Your task to perform on an android device: search for outdoor chairs on article.com Image 0: 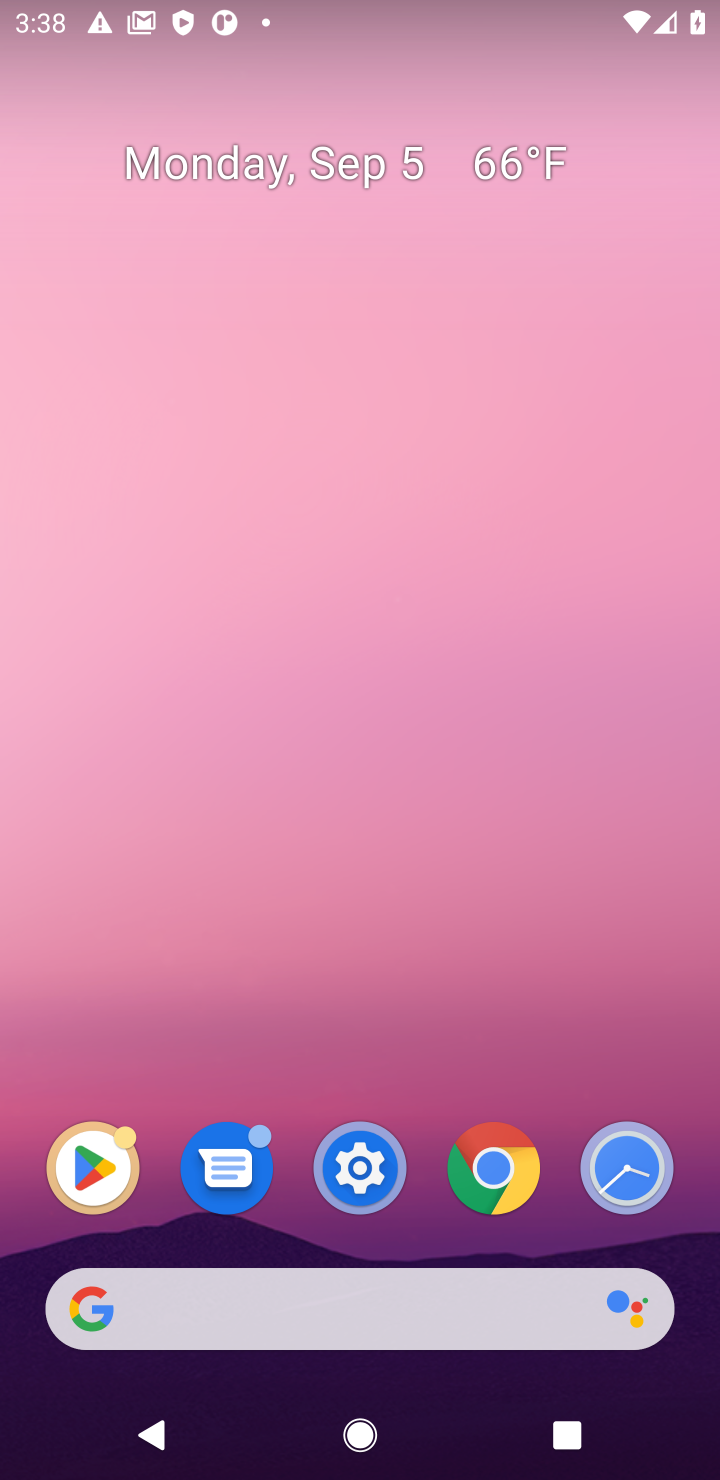
Step 0: click (309, 1288)
Your task to perform on an android device: search for outdoor chairs on article.com Image 1: 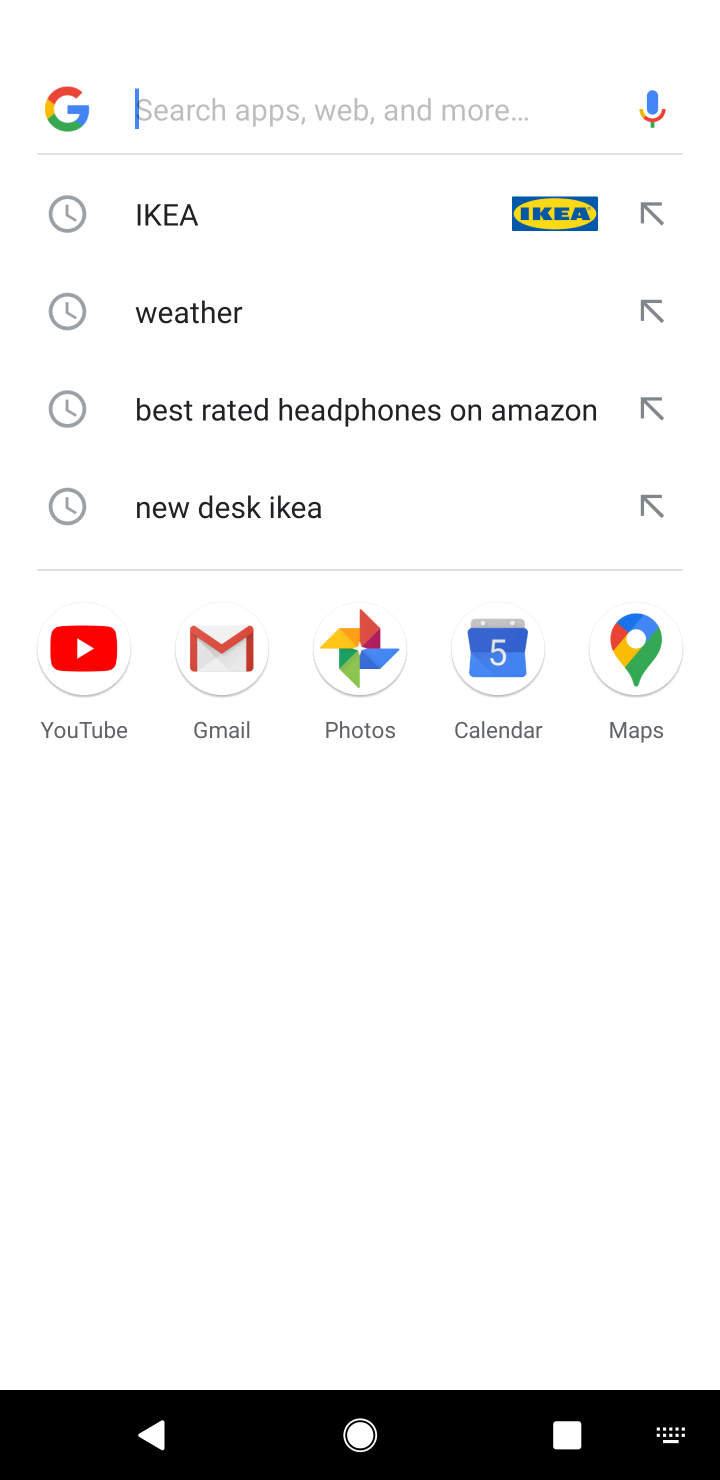
Step 1: type "article.com"
Your task to perform on an android device: search for outdoor chairs on article.com Image 2: 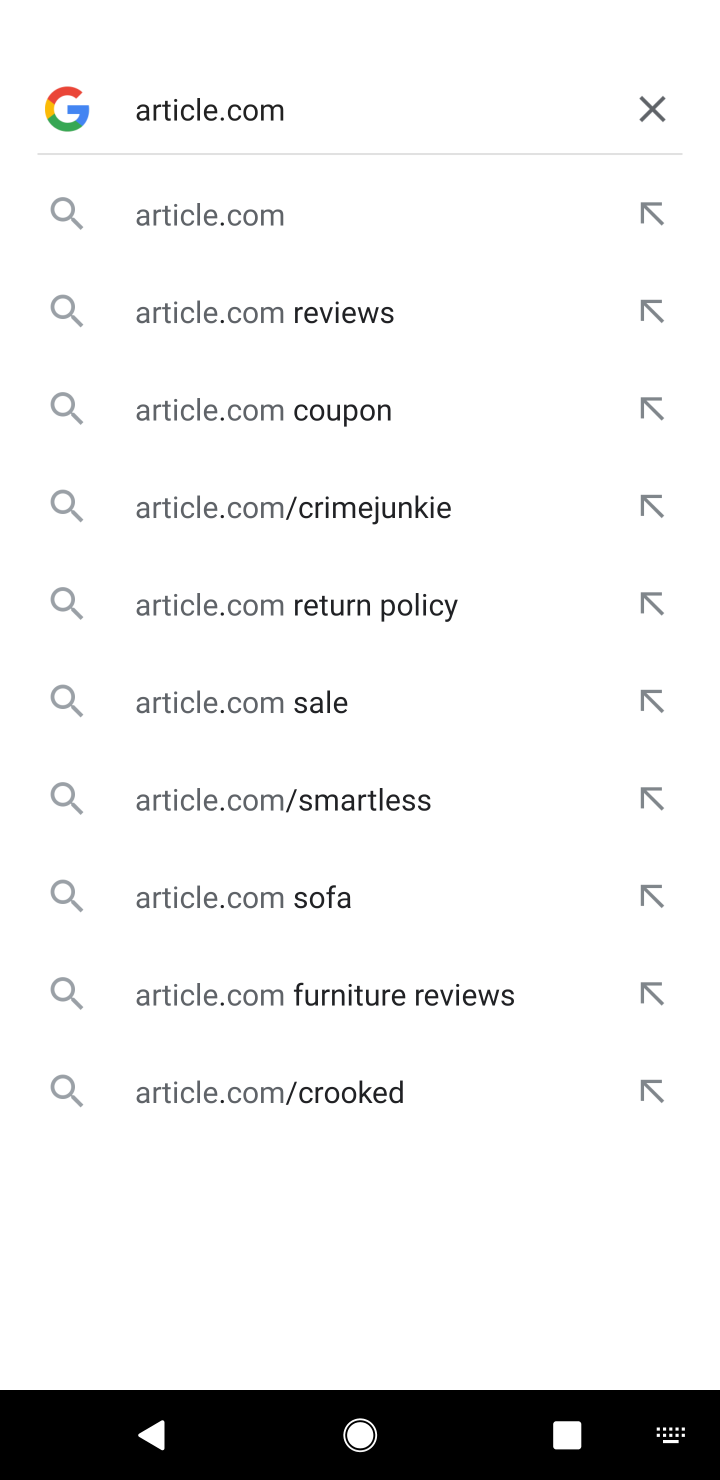
Step 2: click (186, 214)
Your task to perform on an android device: search for outdoor chairs on article.com Image 3: 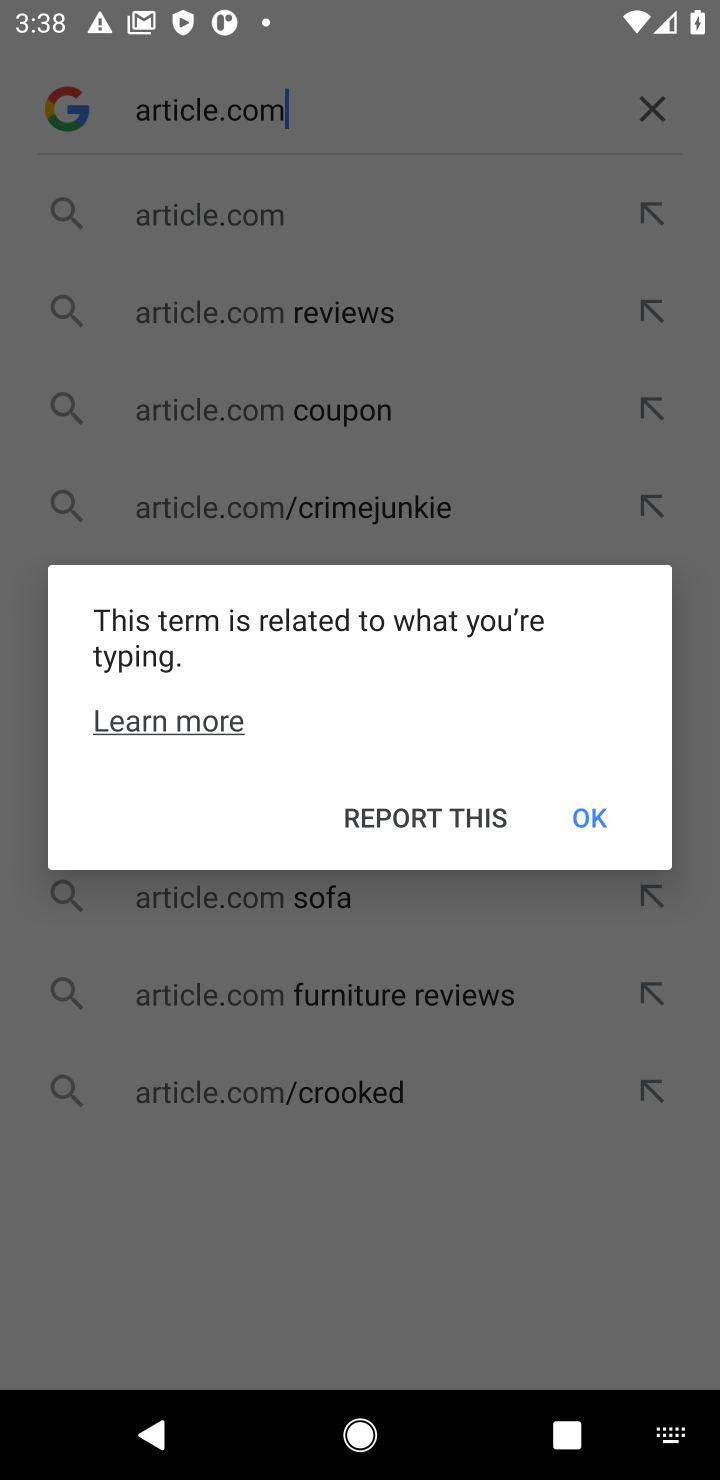
Step 3: click (586, 826)
Your task to perform on an android device: search for outdoor chairs on article.com Image 4: 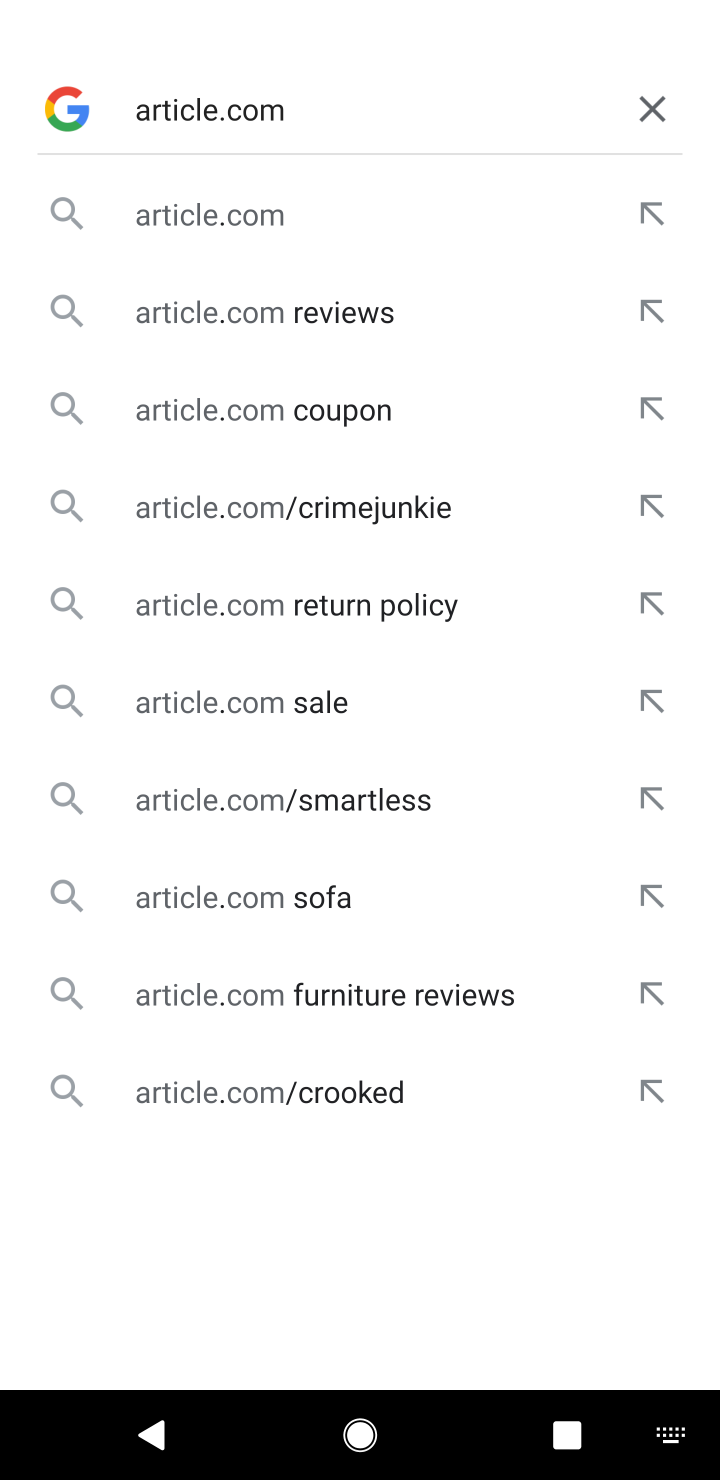
Step 4: click (250, 191)
Your task to perform on an android device: search for outdoor chairs on article.com Image 5: 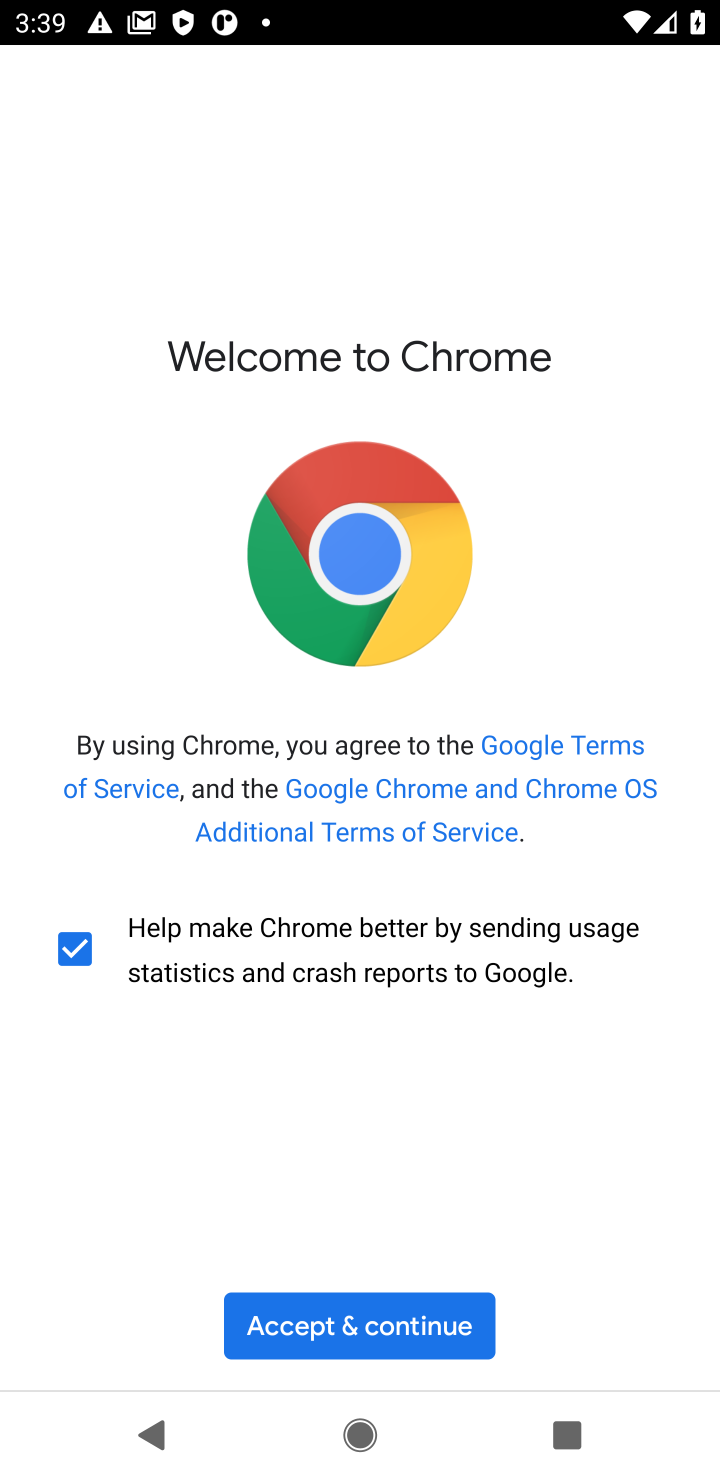
Step 5: click (339, 1346)
Your task to perform on an android device: search for outdoor chairs on article.com Image 6: 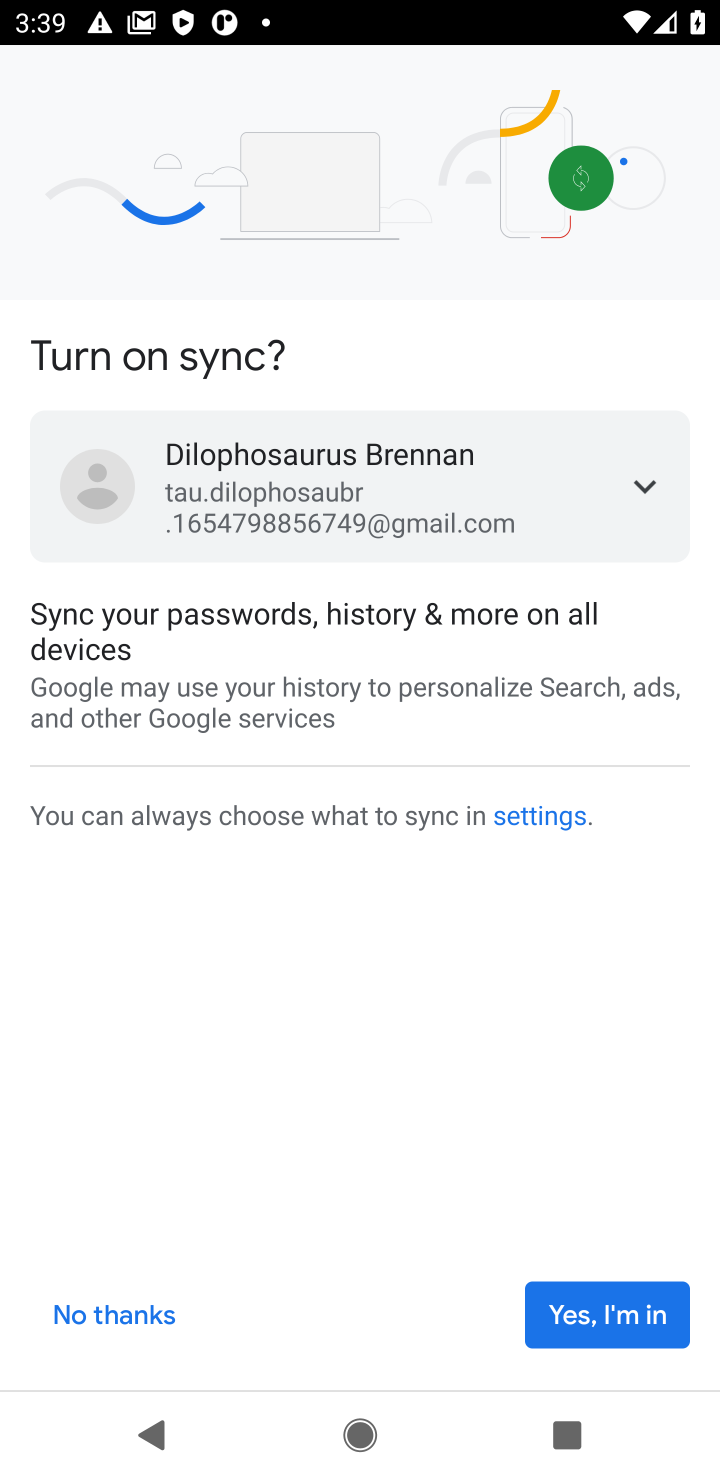
Step 6: click (587, 1346)
Your task to perform on an android device: search for outdoor chairs on article.com Image 7: 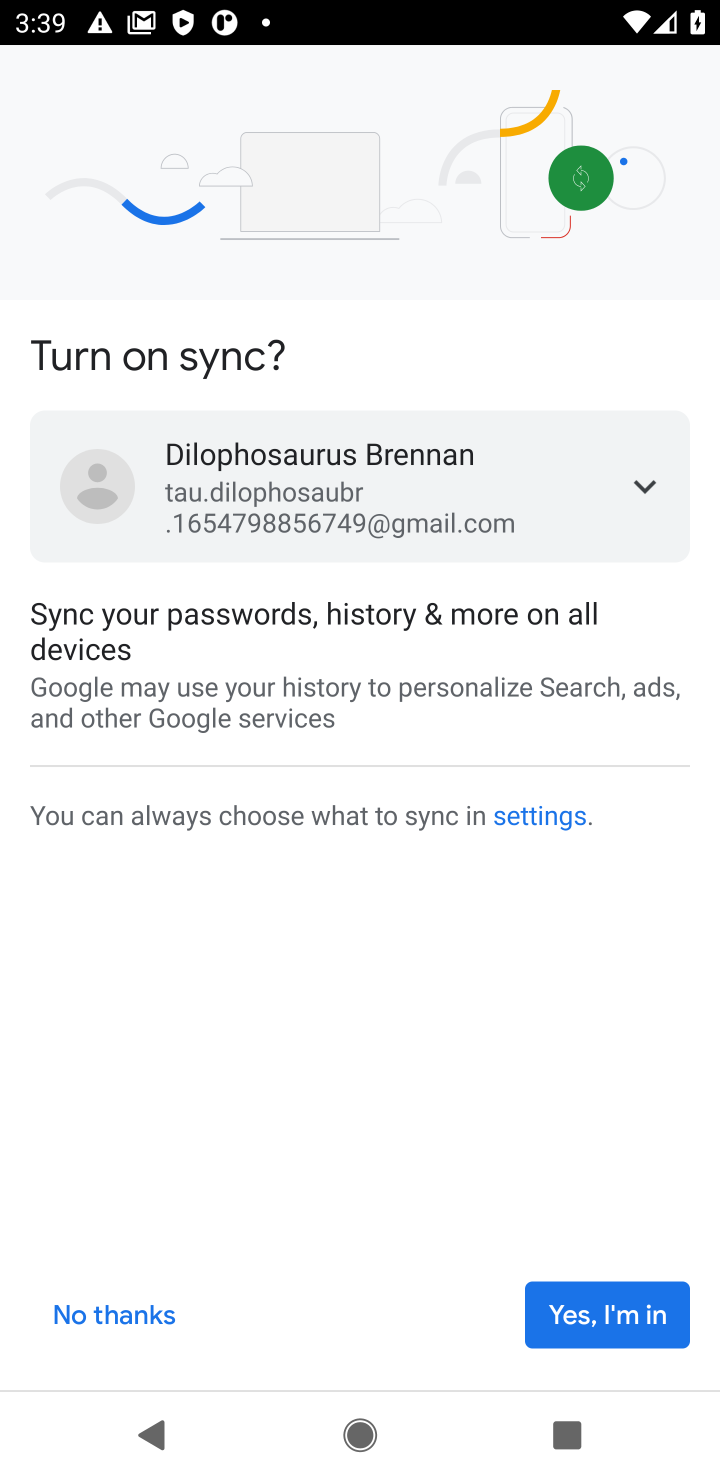
Step 7: click (611, 1305)
Your task to perform on an android device: search for outdoor chairs on article.com Image 8: 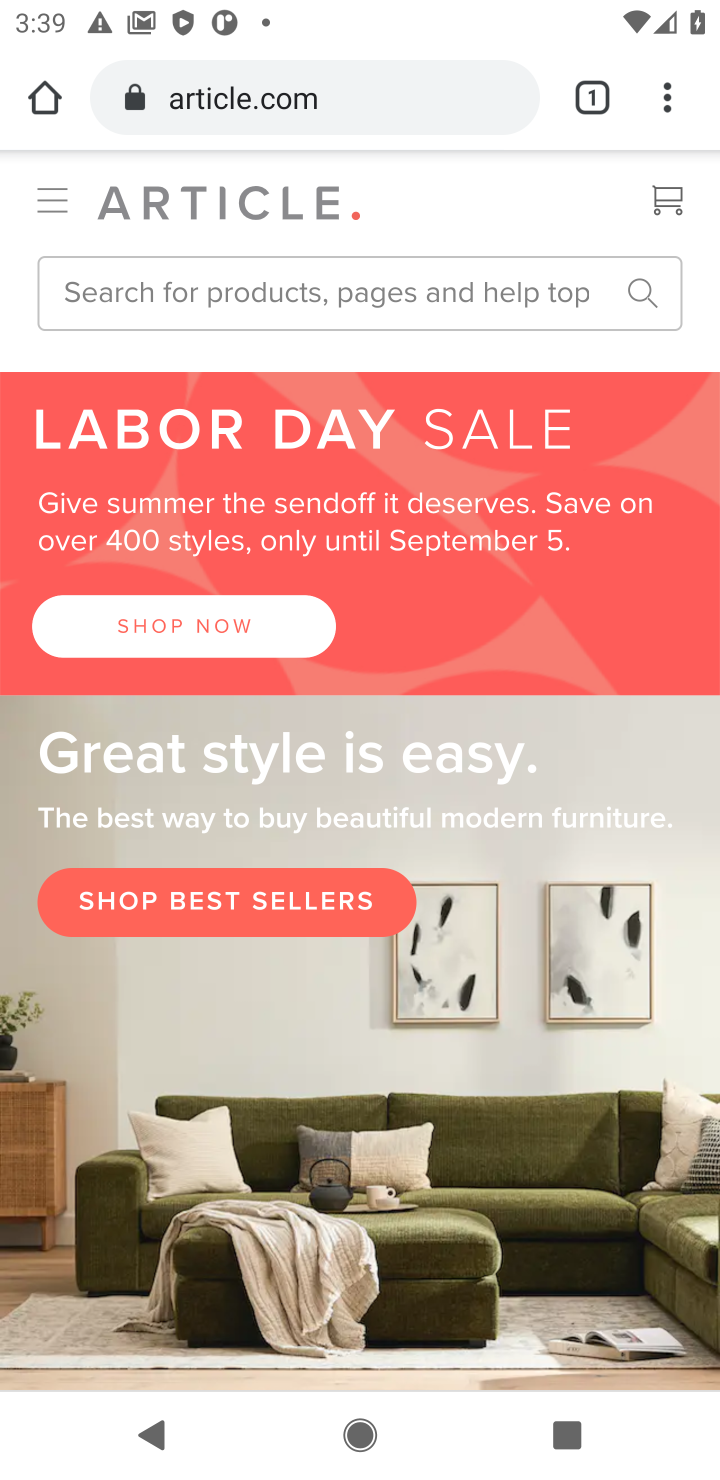
Step 8: click (375, 280)
Your task to perform on an android device: search for outdoor chairs on article.com Image 9: 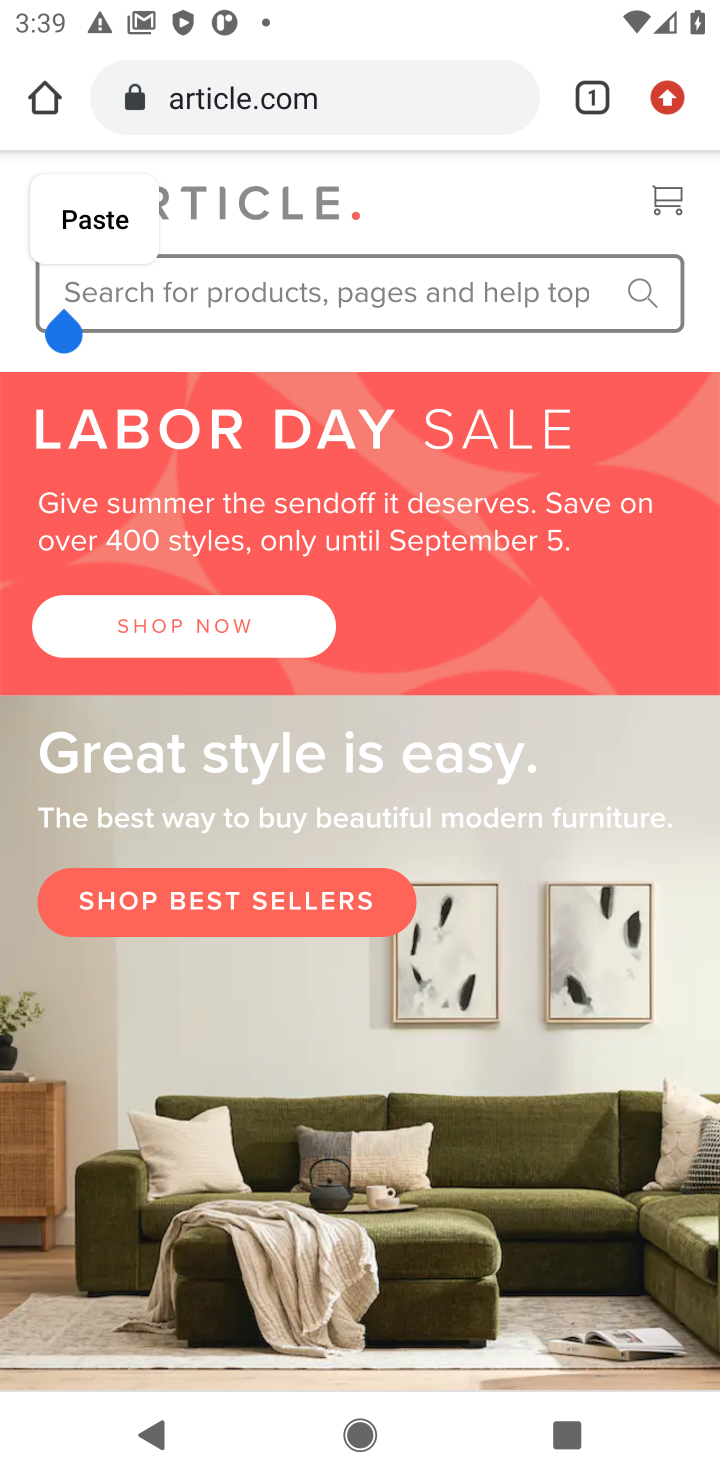
Step 9: type "outdoor chairs"
Your task to perform on an android device: search for outdoor chairs on article.com Image 10: 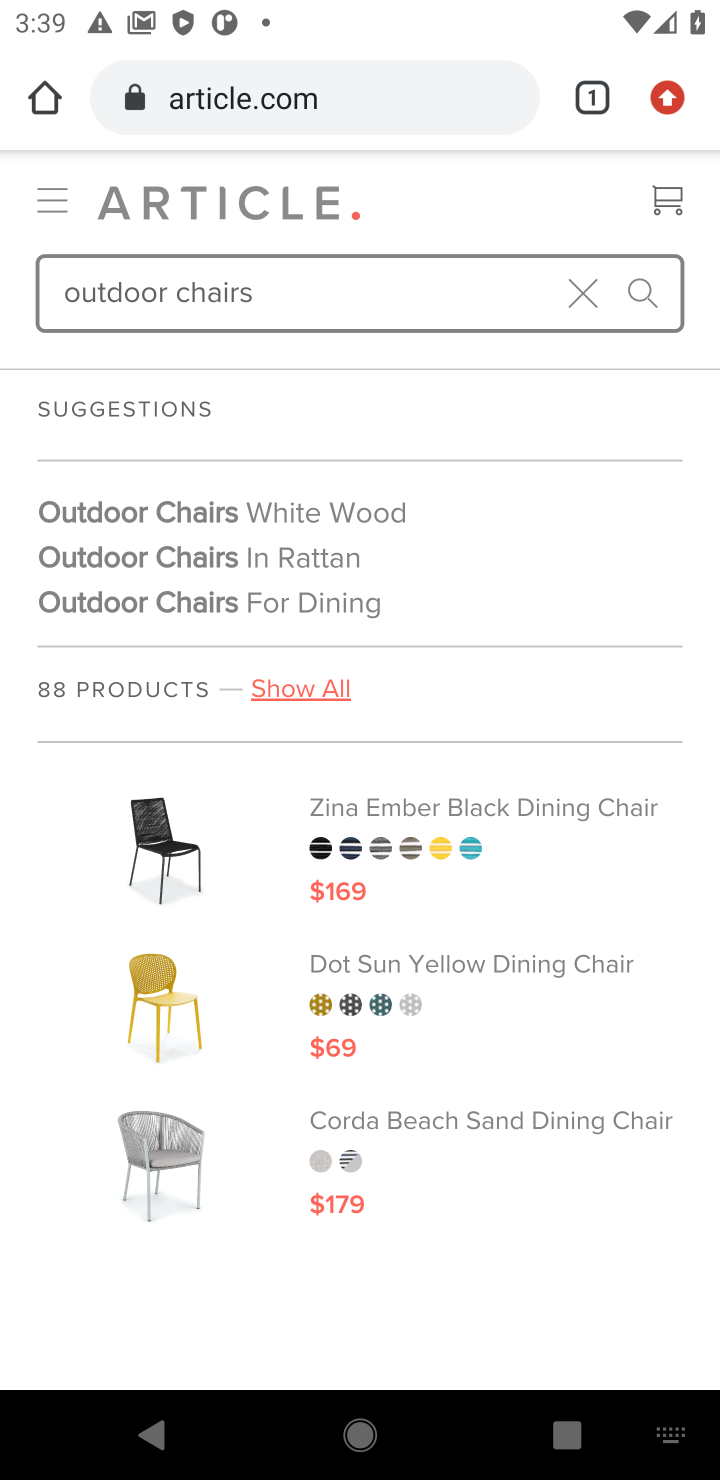
Step 10: task complete